Your task to perform on an android device: set default search engine in the chrome app Image 0: 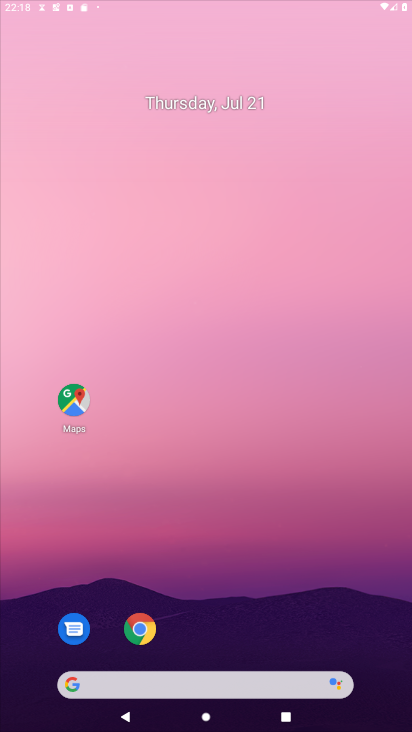
Step 0: click (293, 118)
Your task to perform on an android device: set default search engine in the chrome app Image 1: 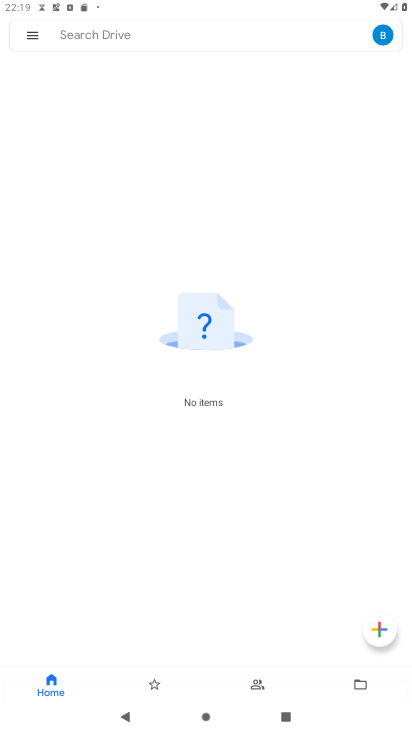
Step 1: press home button
Your task to perform on an android device: set default search engine in the chrome app Image 2: 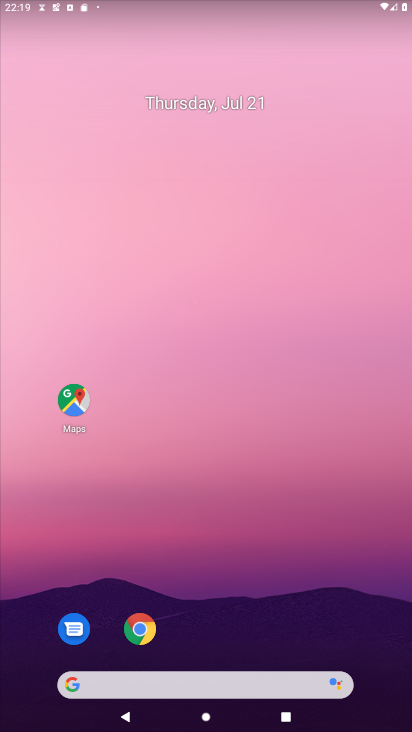
Step 2: drag from (185, 603) to (145, 95)
Your task to perform on an android device: set default search engine in the chrome app Image 3: 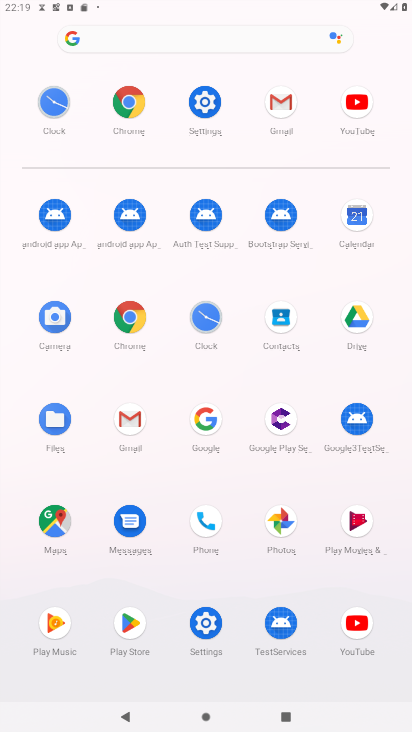
Step 3: click (137, 325)
Your task to perform on an android device: set default search engine in the chrome app Image 4: 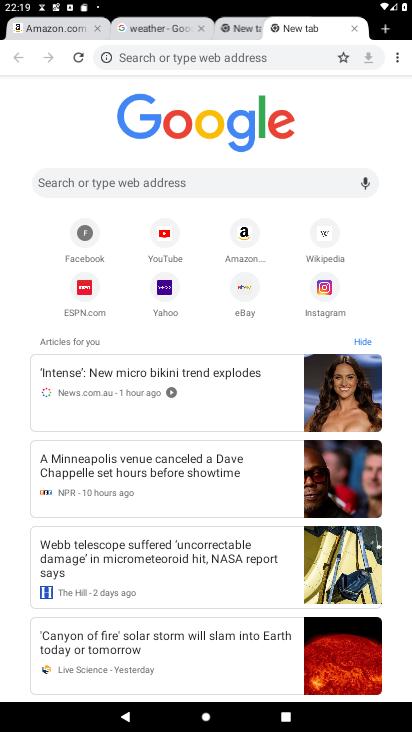
Step 4: click (402, 57)
Your task to perform on an android device: set default search engine in the chrome app Image 5: 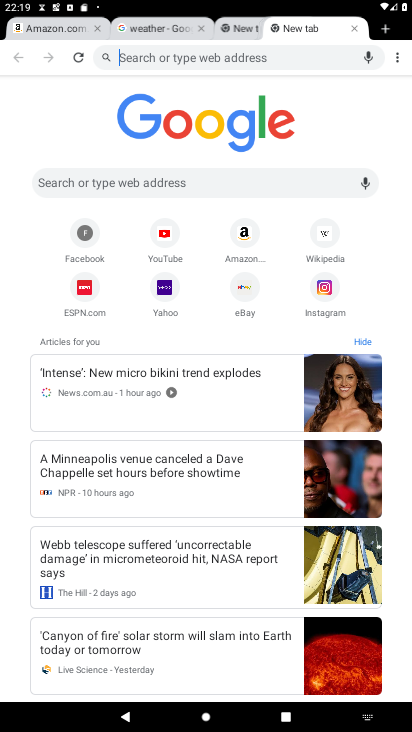
Step 5: click (399, 61)
Your task to perform on an android device: set default search engine in the chrome app Image 6: 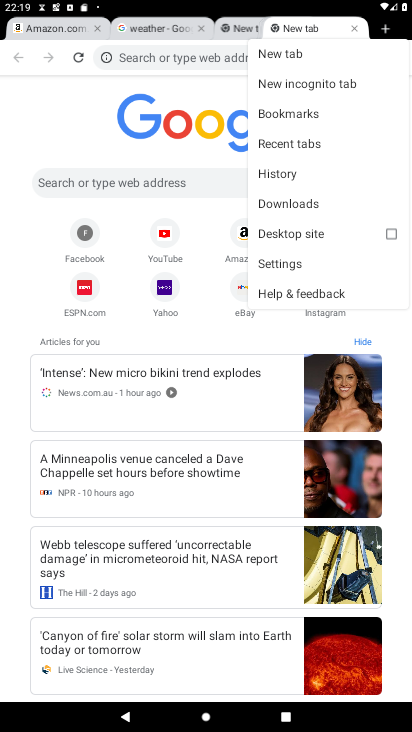
Step 6: click (312, 261)
Your task to perform on an android device: set default search engine in the chrome app Image 7: 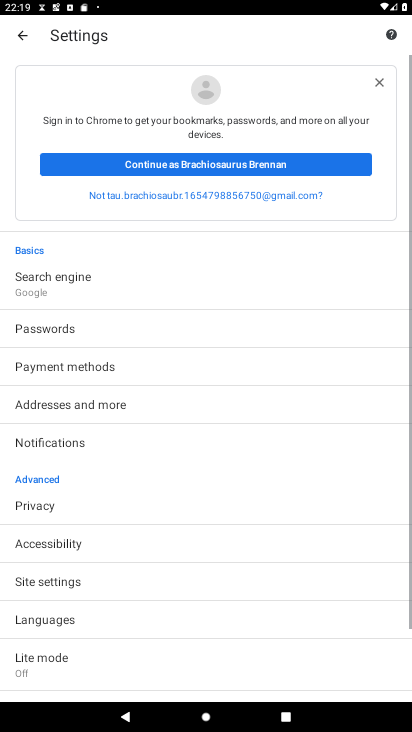
Step 7: click (142, 283)
Your task to perform on an android device: set default search engine in the chrome app Image 8: 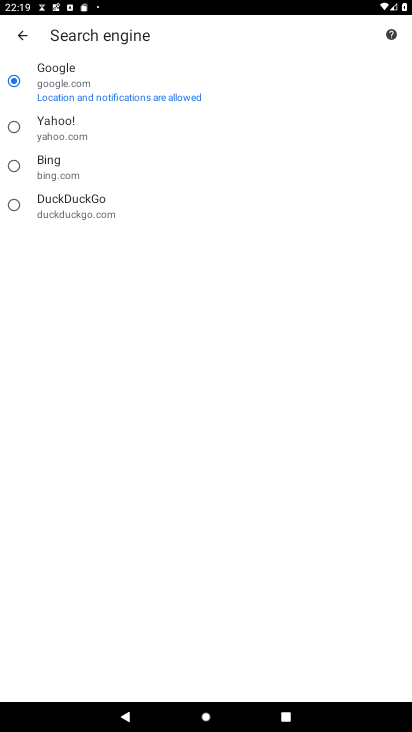
Step 8: click (81, 105)
Your task to perform on an android device: set default search engine in the chrome app Image 9: 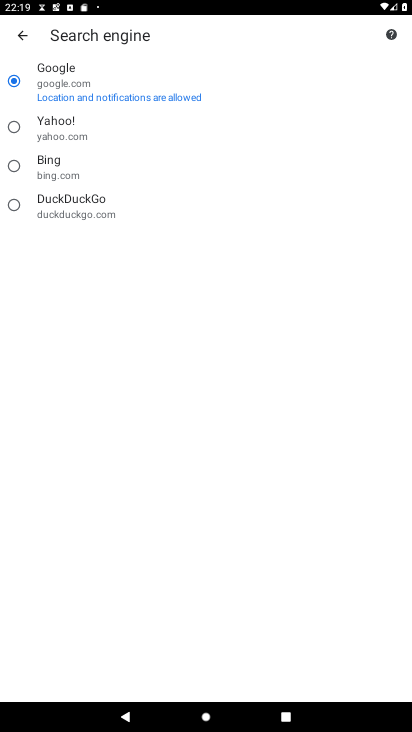
Step 9: click (117, 100)
Your task to perform on an android device: set default search engine in the chrome app Image 10: 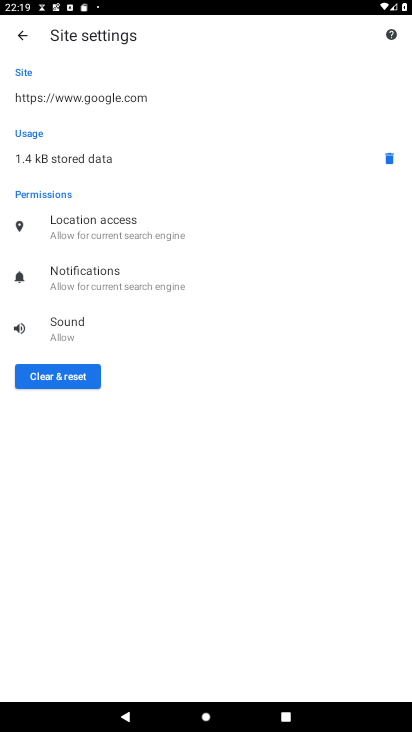
Step 10: click (52, 379)
Your task to perform on an android device: set default search engine in the chrome app Image 11: 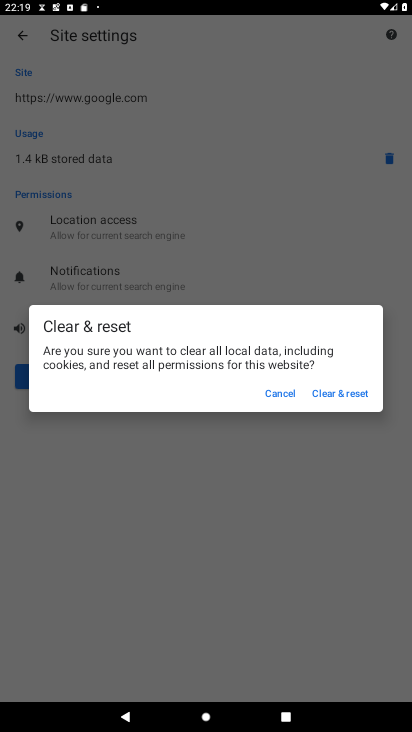
Step 11: click (346, 387)
Your task to perform on an android device: set default search engine in the chrome app Image 12: 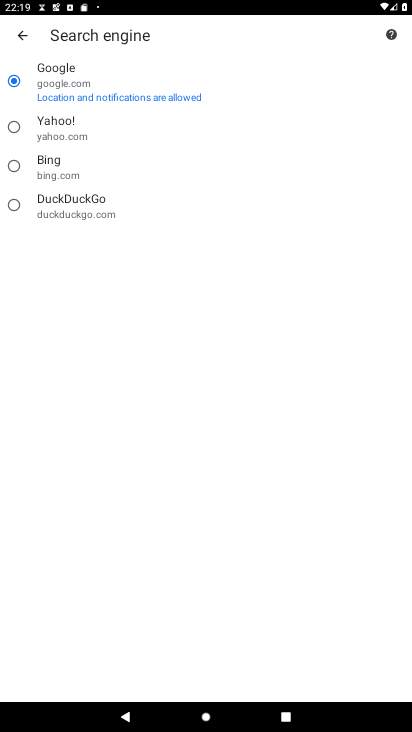
Step 12: task complete